Your task to perform on an android device: turn on bluetooth scan Image 0: 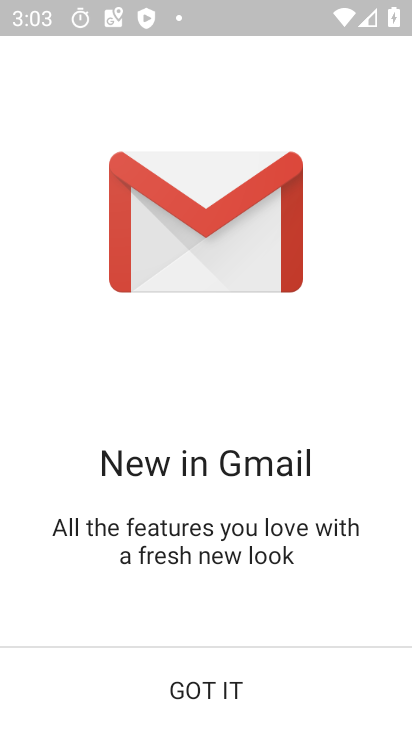
Step 0: press home button
Your task to perform on an android device: turn on bluetooth scan Image 1: 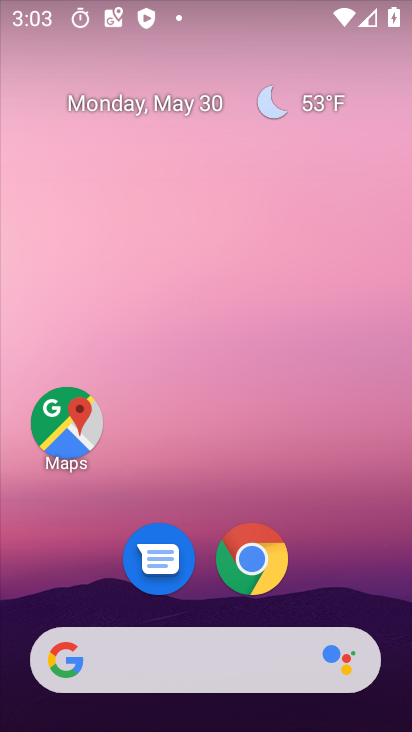
Step 1: drag from (226, 641) to (182, 123)
Your task to perform on an android device: turn on bluetooth scan Image 2: 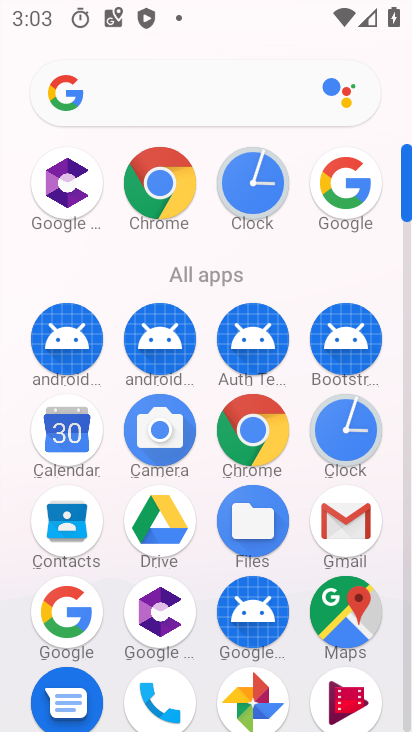
Step 2: drag from (208, 672) to (203, 234)
Your task to perform on an android device: turn on bluetooth scan Image 3: 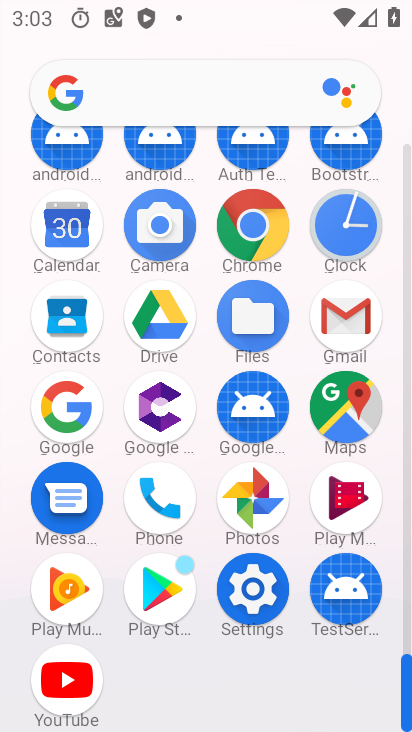
Step 3: click (240, 594)
Your task to perform on an android device: turn on bluetooth scan Image 4: 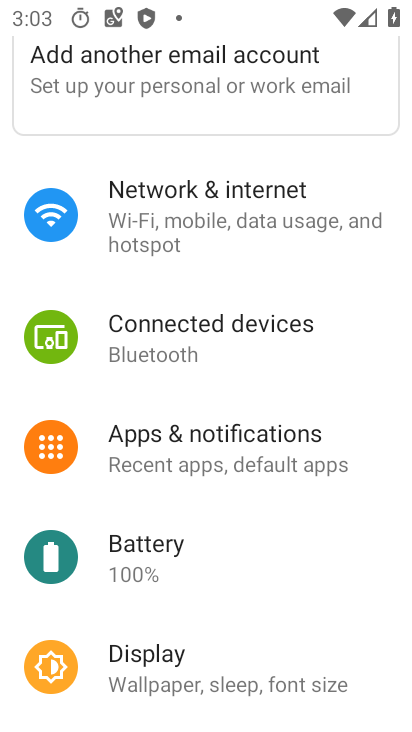
Step 4: drag from (196, 702) to (208, 303)
Your task to perform on an android device: turn on bluetooth scan Image 5: 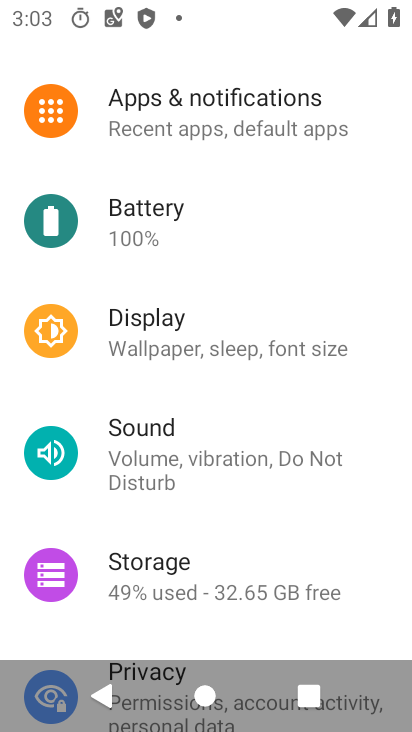
Step 5: drag from (192, 607) to (190, 353)
Your task to perform on an android device: turn on bluetooth scan Image 6: 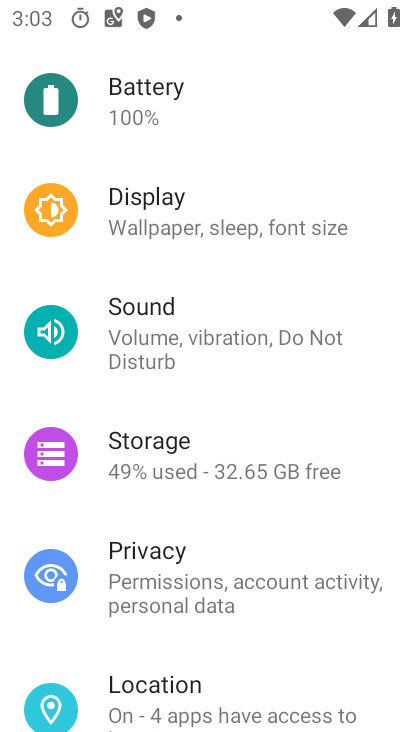
Step 6: click (168, 692)
Your task to perform on an android device: turn on bluetooth scan Image 7: 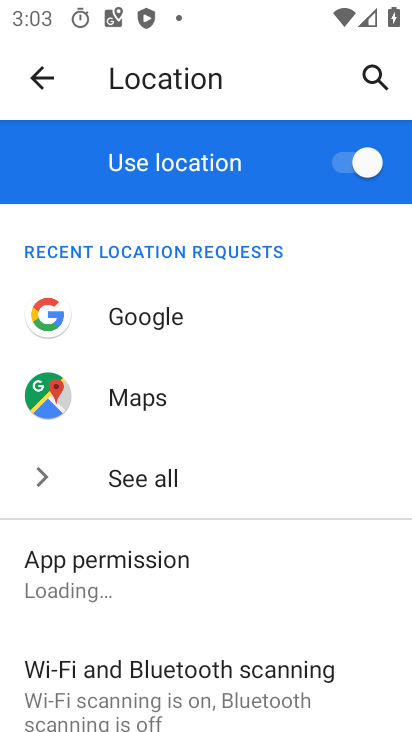
Step 7: click (241, 354)
Your task to perform on an android device: turn on bluetooth scan Image 8: 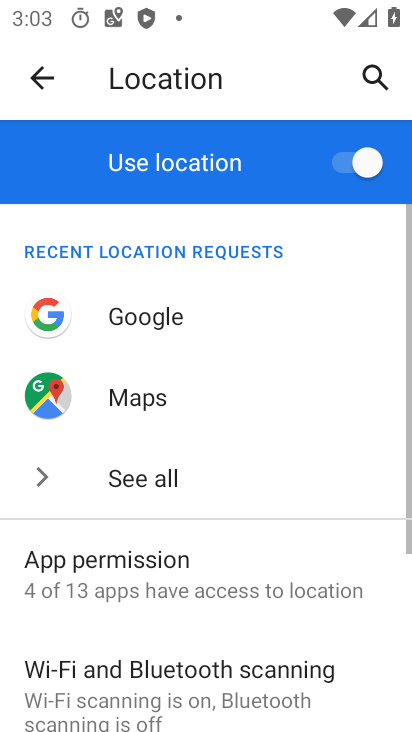
Step 8: drag from (188, 574) to (189, 388)
Your task to perform on an android device: turn on bluetooth scan Image 9: 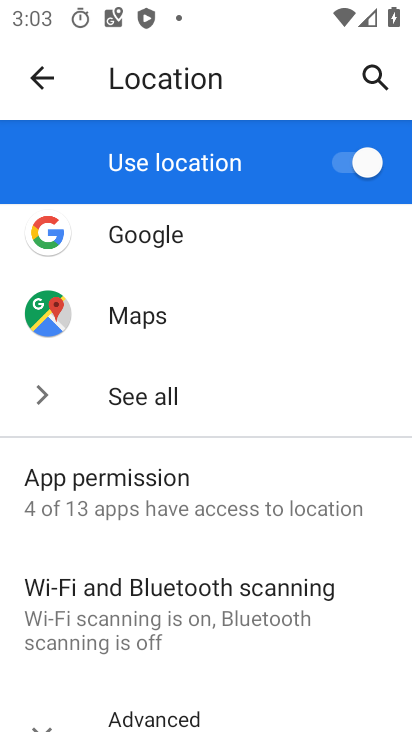
Step 9: click (104, 582)
Your task to perform on an android device: turn on bluetooth scan Image 10: 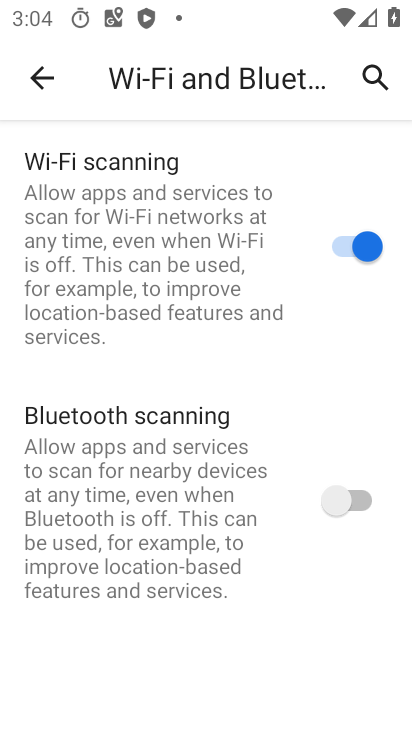
Step 10: click (363, 499)
Your task to perform on an android device: turn on bluetooth scan Image 11: 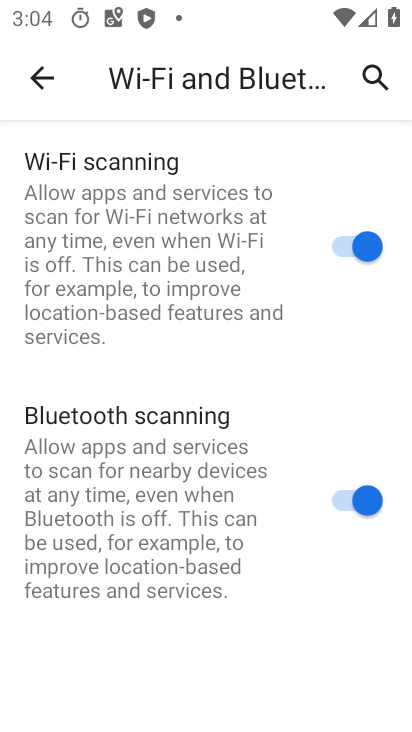
Step 11: task complete